Your task to perform on an android device: Open Youtube and go to "Your channel" Image 0: 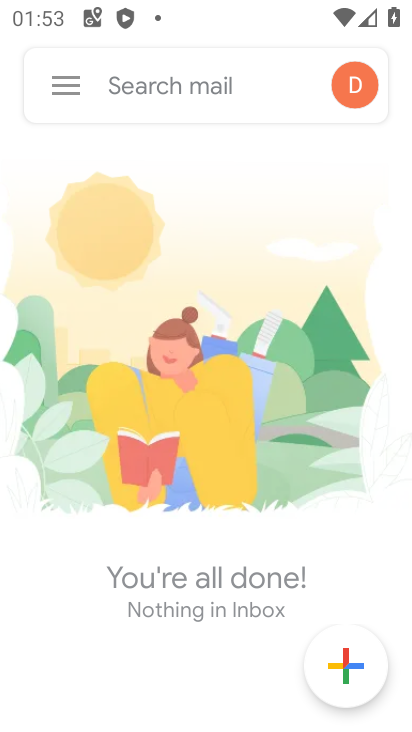
Step 0: press home button
Your task to perform on an android device: Open Youtube and go to "Your channel" Image 1: 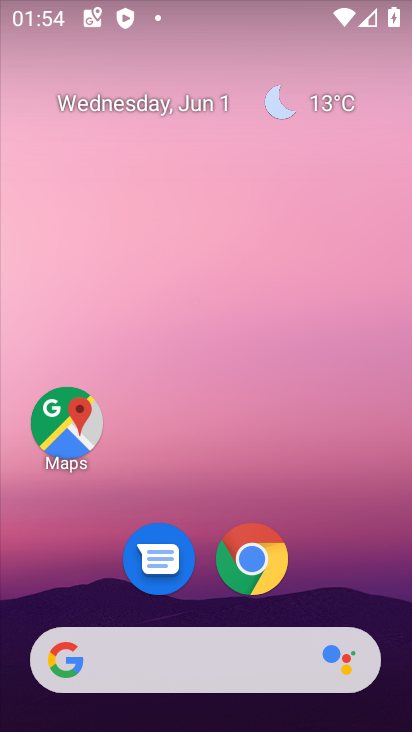
Step 1: drag from (399, 589) to (383, 13)
Your task to perform on an android device: Open Youtube and go to "Your channel" Image 2: 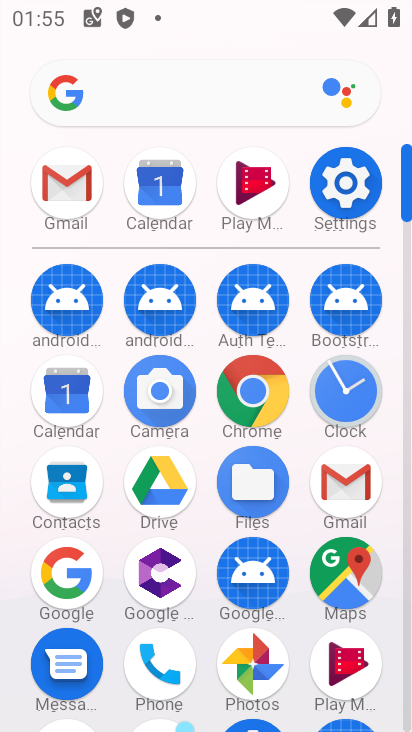
Step 2: drag from (303, 581) to (268, 261)
Your task to perform on an android device: Open Youtube and go to "Your channel" Image 3: 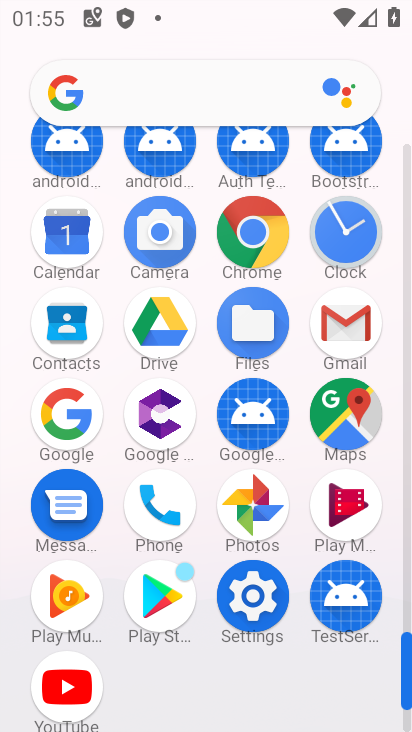
Step 3: click (63, 680)
Your task to perform on an android device: Open Youtube and go to "Your channel" Image 4: 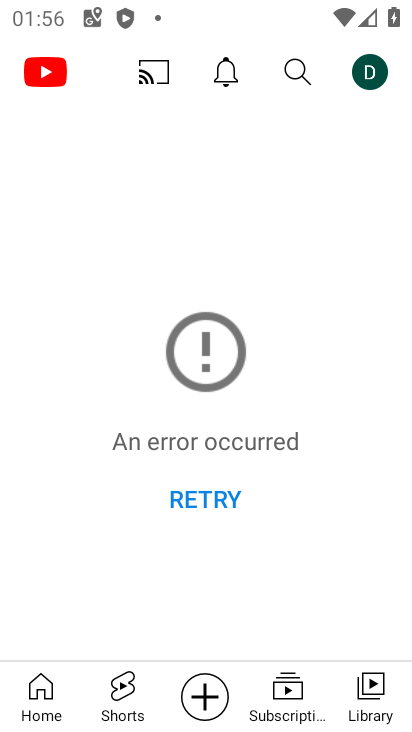
Step 4: click (370, 83)
Your task to perform on an android device: Open Youtube and go to "Your channel" Image 5: 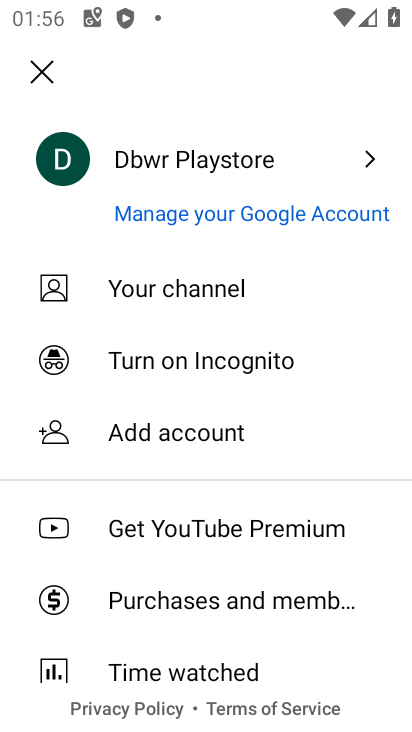
Step 5: click (210, 289)
Your task to perform on an android device: Open Youtube and go to "Your channel" Image 6: 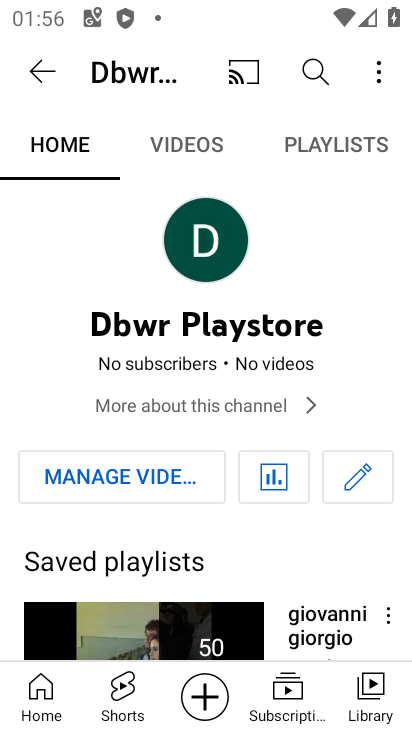
Step 6: task complete